Your task to perform on an android device: change the upload size in google photos Image 0: 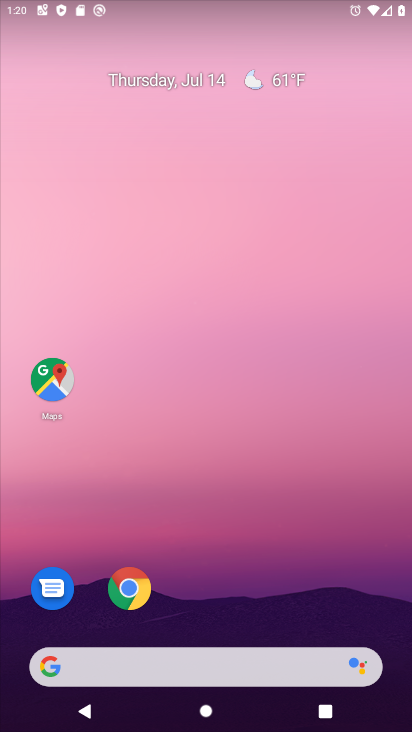
Step 0: drag from (213, 639) to (267, 202)
Your task to perform on an android device: change the upload size in google photos Image 1: 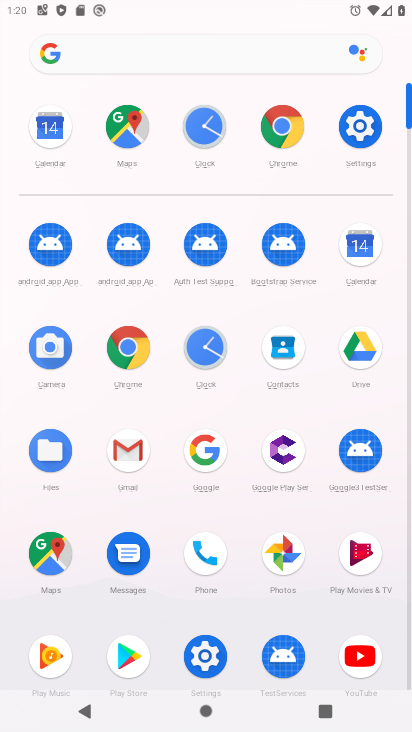
Step 1: click (295, 550)
Your task to perform on an android device: change the upload size in google photos Image 2: 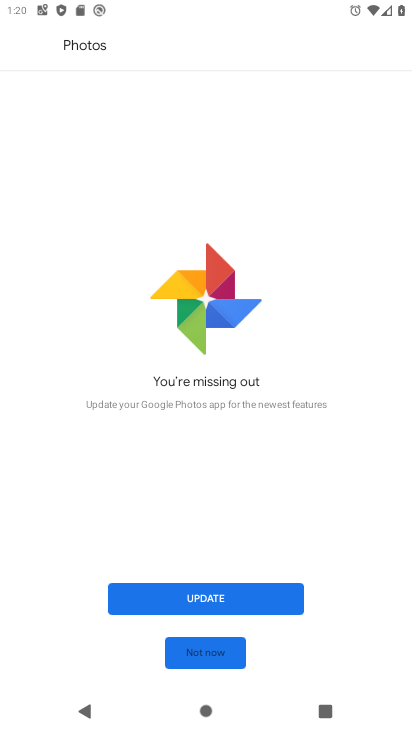
Step 2: click (201, 650)
Your task to perform on an android device: change the upload size in google photos Image 3: 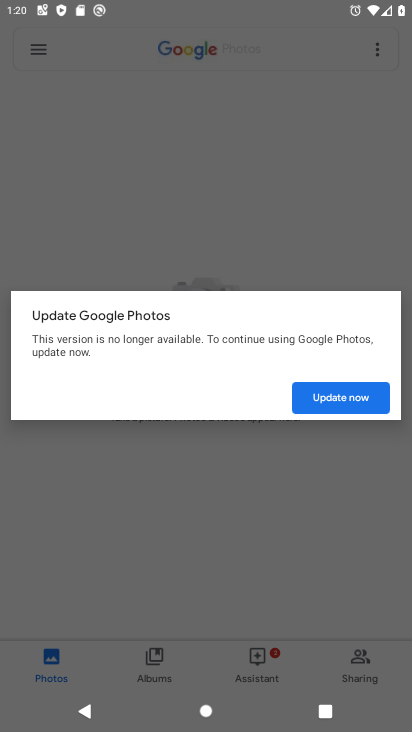
Step 3: click (327, 392)
Your task to perform on an android device: change the upload size in google photos Image 4: 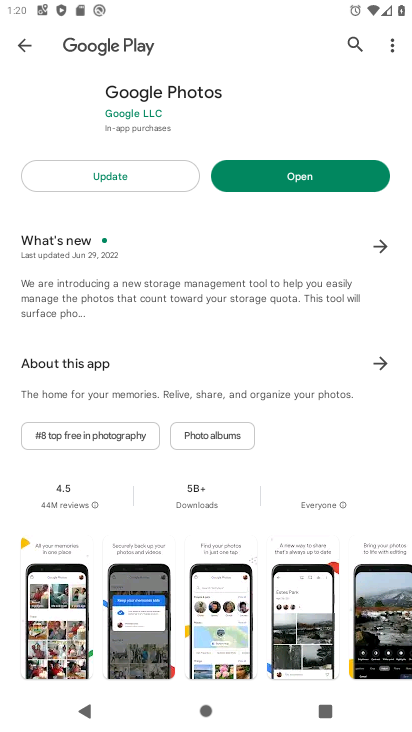
Step 4: press back button
Your task to perform on an android device: change the upload size in google photos Image 5: 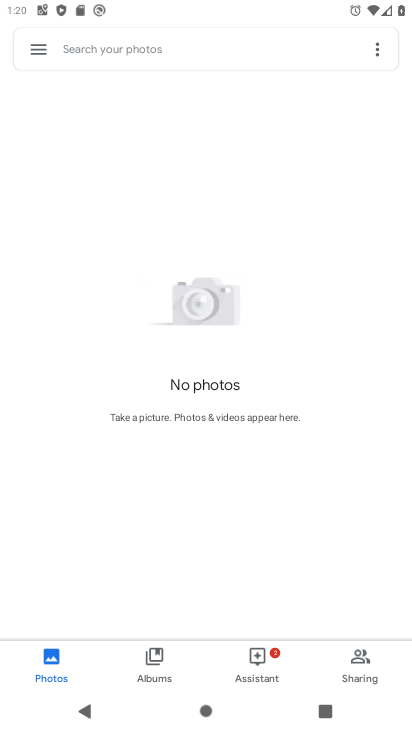
Step 5: click (35, 49)
Your task to perform on an android device: change the upload size in google photos Image 6: 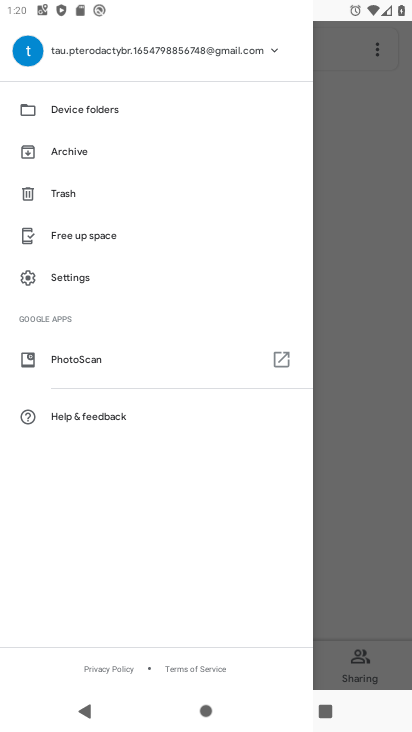
Step 6: click (35, 49)
Your task to perform on an android device: change the upload size in google photos Image 7: 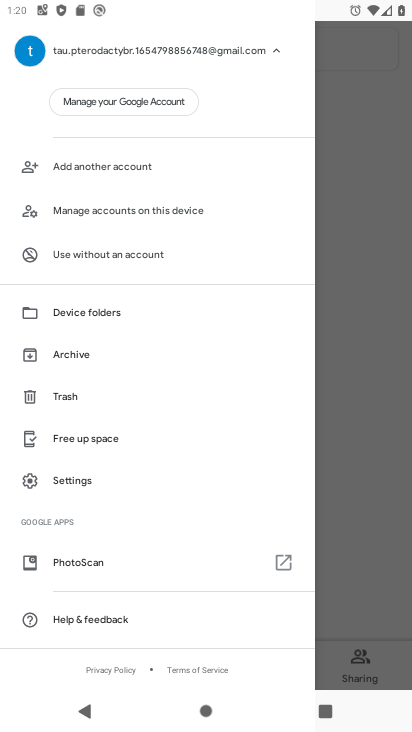
Step 7: click (97, 476)
Your task to perform on an android device: change the upload size in google photos Image 8: 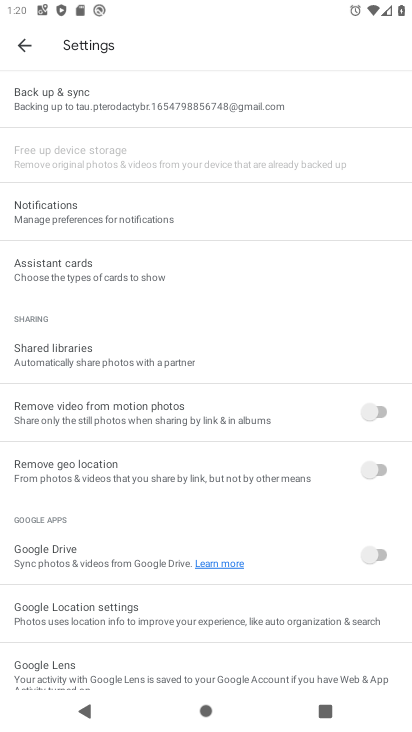
Step 8: click (101, 96)
Your task to perform on an android device: change the upload size in google photos Image 9: 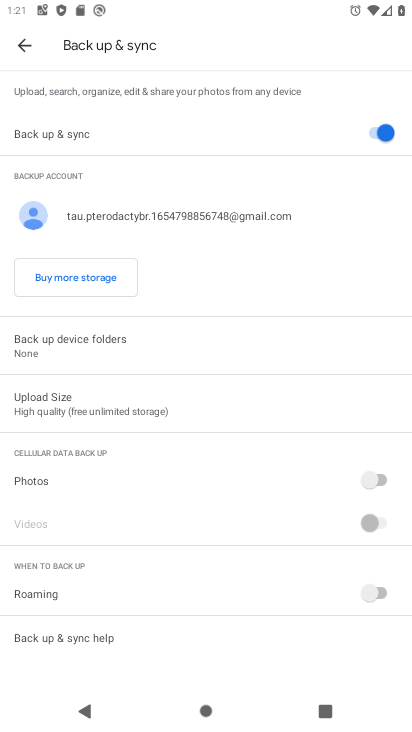
Step 9: click (156, 402)
Your task to perform on an android device: change the upload size in google photos Image 10: 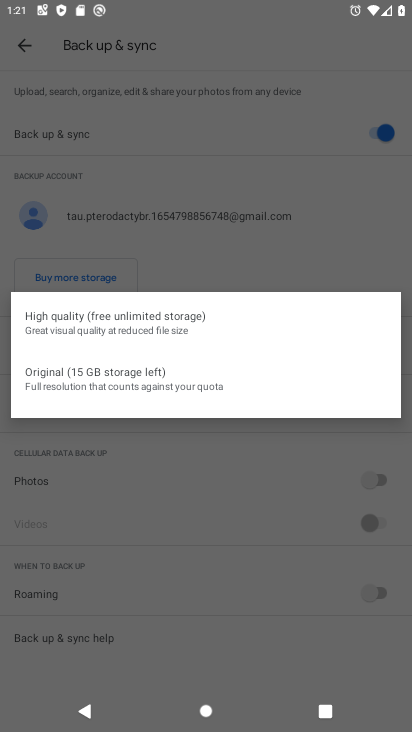
Step 10: click (134, 393)
Your task to perform on an android device: change the upload size in google photos Image 11: 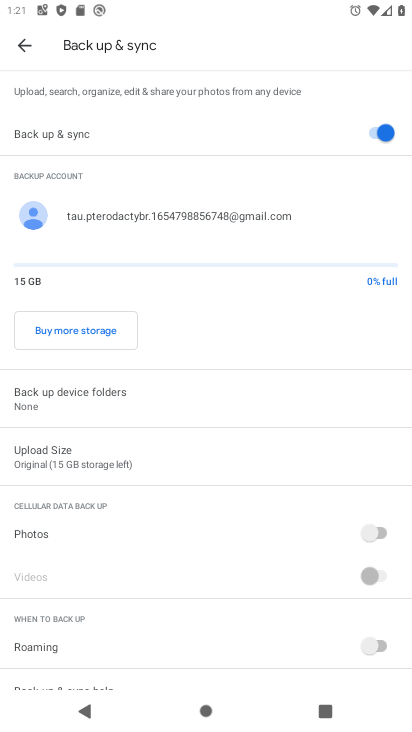
Step 11: click (132, 469)
Your task to perform on an android device: change the upload size in google photos Image 12: 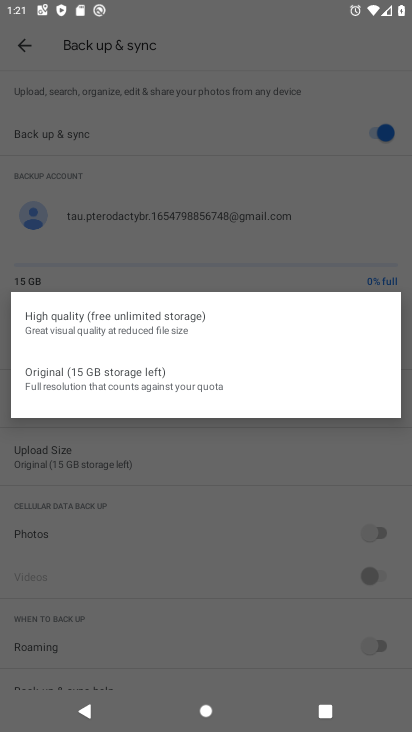
Step 12: click (96, 389)
Your task to perform on an android device: change the upload size in google photos Image 13: 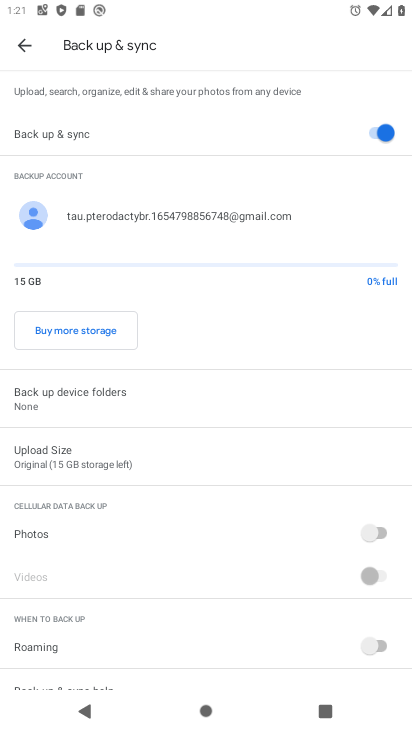
Step 13: task complete